Your task to perform on an android device: What is the news today? Image 0: 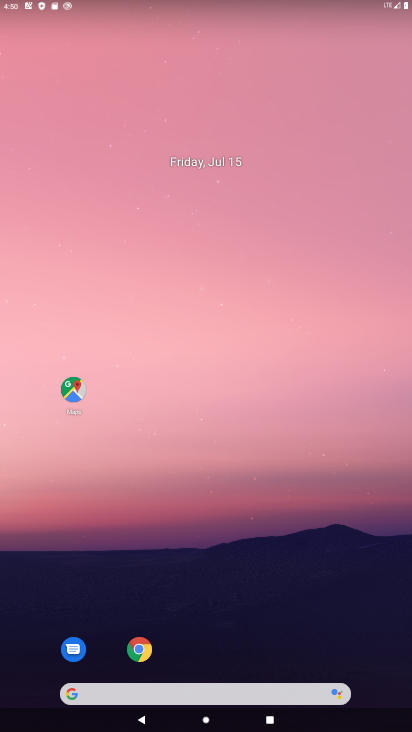
Step 0: drag from (392, 519) to (407, 110)
Your task to perform on an android device: What is the news today? Image 1: 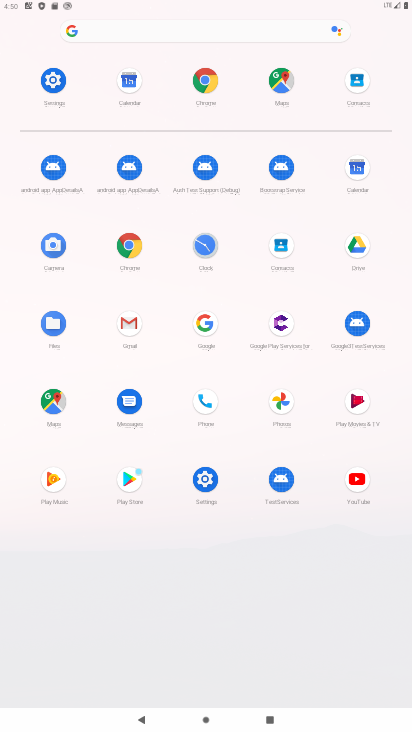
Step 1: click (206, 75)
Your task to perform on an android device: What is the news today? Image 2: 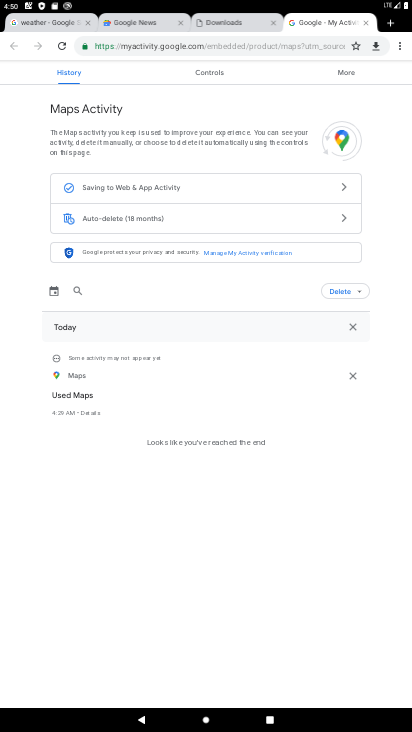
Step 2: click (256, 43)
Your task to perform on an android device: What is the news today? Image 3: 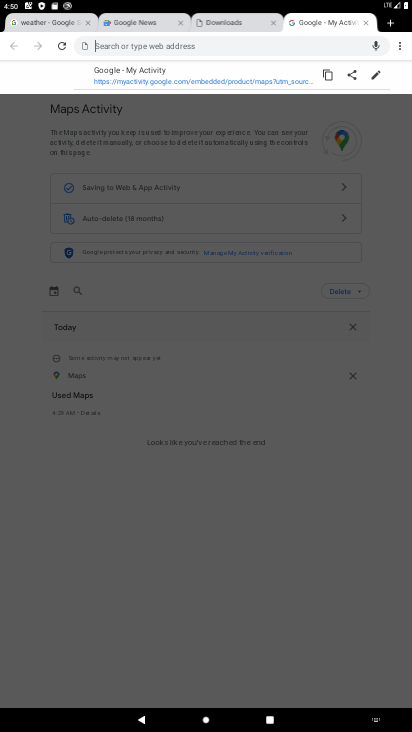
Step 3: type "news"
Your task to perform on an android device: What is the news today? Image 4: 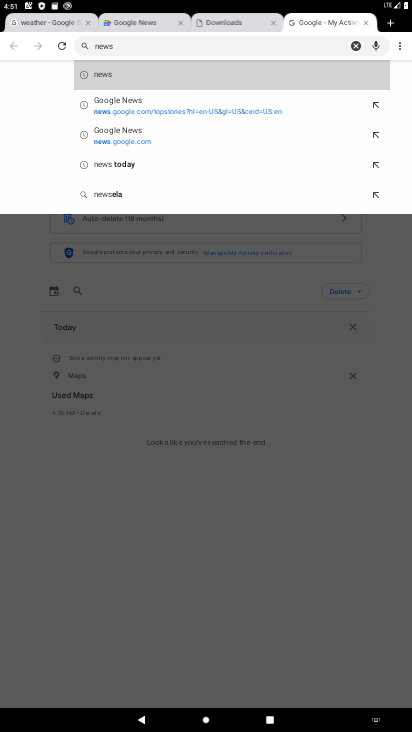
Step 4: click (122, 108)
Your task to perform on an android device: What is the news today? Image 5: 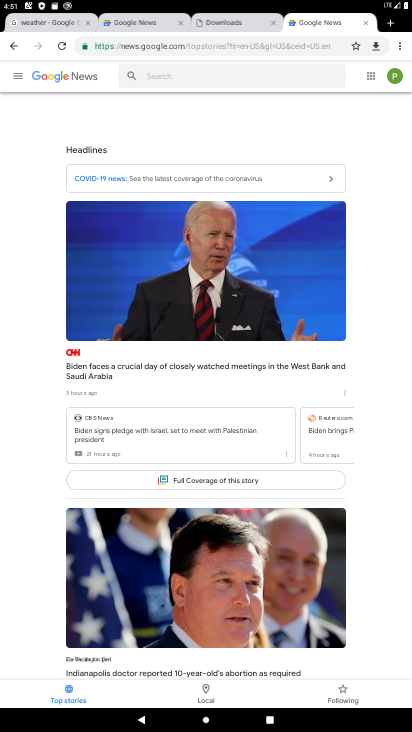
Step 5: task complete